Your task to perform on an android device: move an email to a new category in the gmail app Image 0: 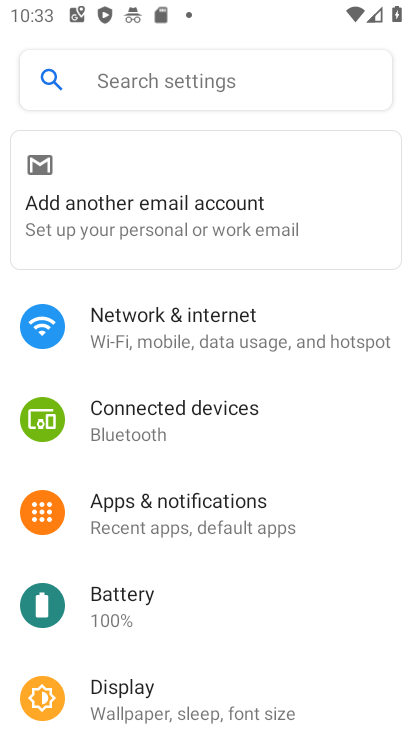
Step 0: press home button
Your task to perform on an android device: move an email to a new category in the gmail app Image 1: 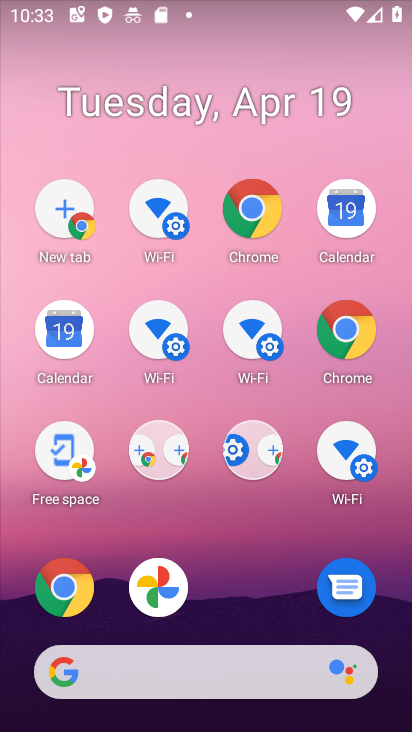
Step 1: click (103, 184)
Your task to perform on an android device: move an email to a new category in the gmail app Image 2: 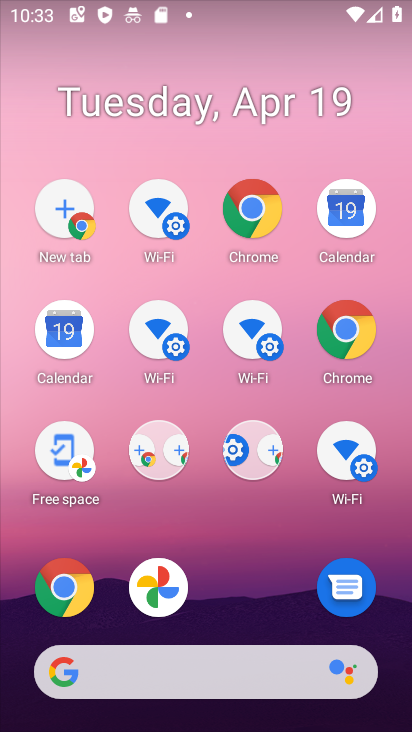
Step 2: drag from (229, 5) to (277, 13)
Your task to perform on an android device: move an email to a new category in the gmail app Image 3: 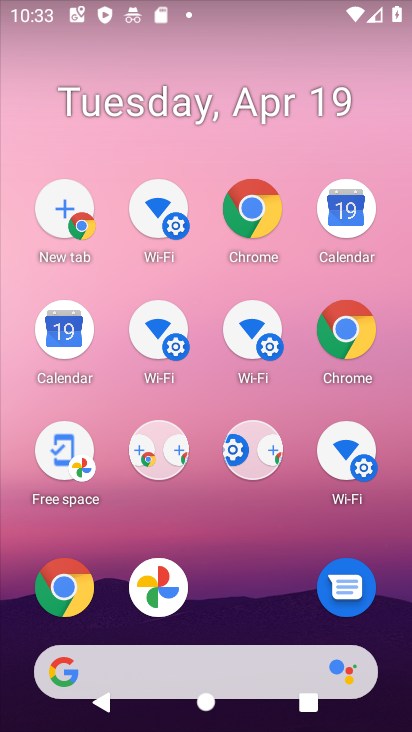
Step 3: click (155, 108)
Your task to perform on an android device: move an email to a new category in the gmail app Image 4: 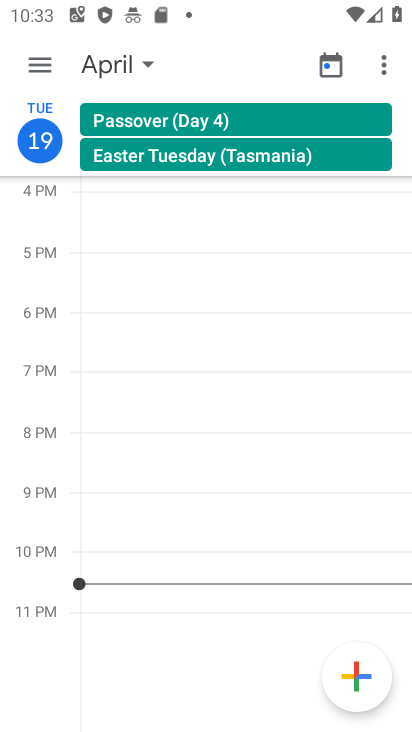
Step 4: drag from (213, 546) to (145, 91)
Your task to perform on an android device: move an email to a new category in the gmail app Image 5: 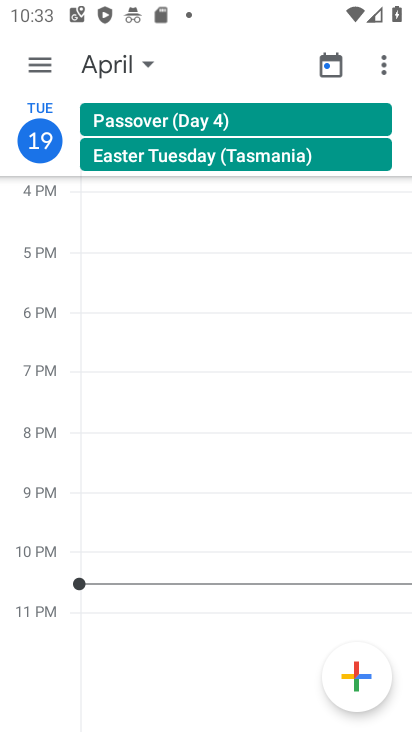
Step 5: press back button
Your task to perform on an android device: move an email to a new category in the gmail app Image 6: 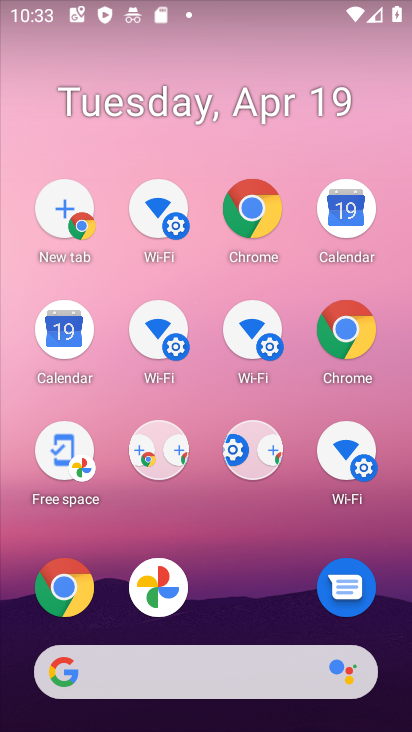
Step 6: drag from (242, 509) to (210, 46)
Your task to perform on an android device: move an email to a new category in the gmail app Image 7: 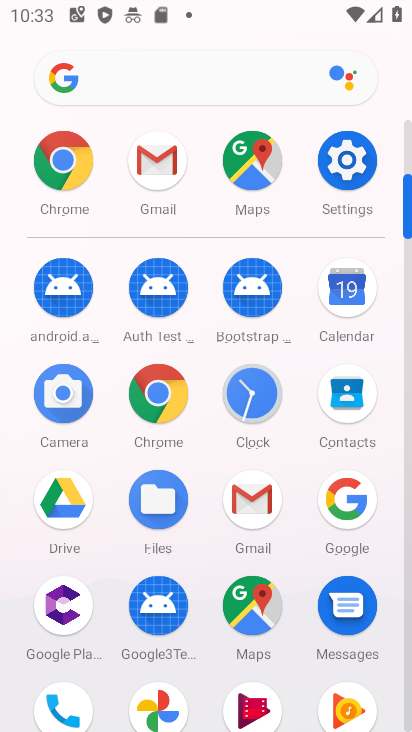
Step 7: drag from (182, 419) to (139, 111)
Your task to perform on an android device: move an email to a new category in the gmail app Image 8: 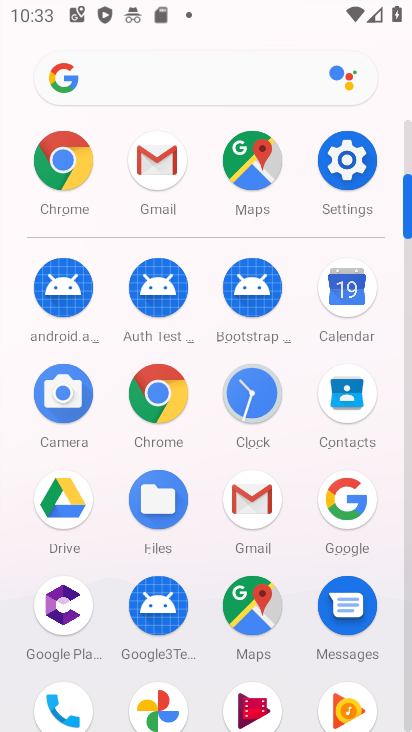
Step 8: click (237, 496)
Your task to perform on an android device: move an email to a new category in the gmail app Image 9: 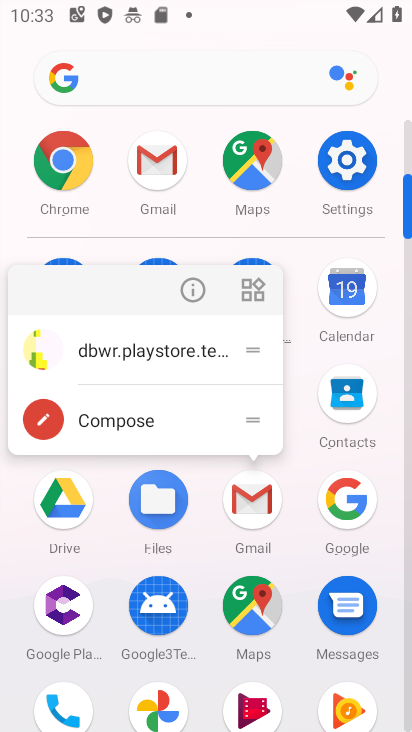
Step 9: click (259, 506)
Your task to perform on an android device: move an email to a new category in the gmail app Image 10: 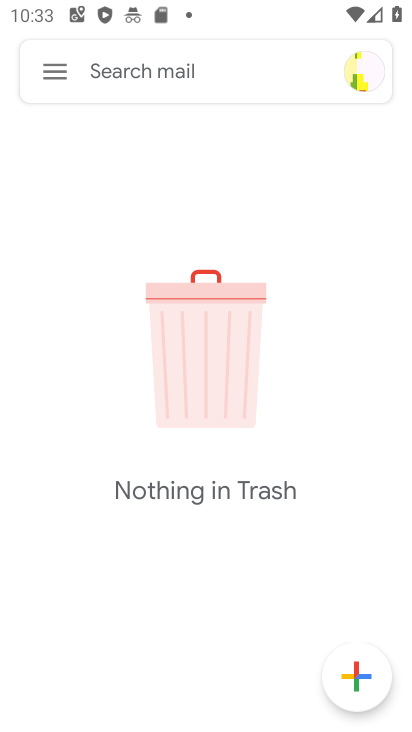
Step 10: click (59, 87)
Your task to perform on an android device: move an email to a new category in the gmail app Image 11: 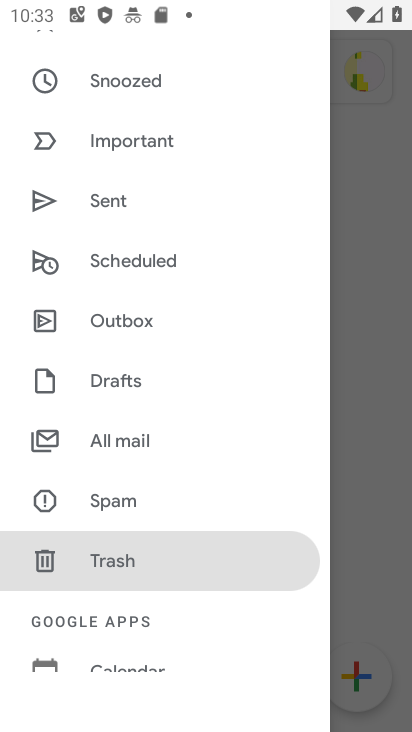
Step 11: click (114, 444)
Your task to perform on an android device: move an email to a new category in the gmail app Image 12: 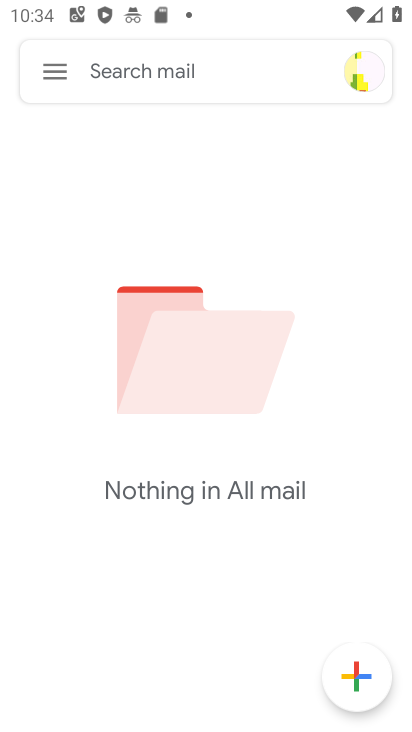
Step 12: task complete